Your task to perform on an android device: Open accessibility settings Image 0: 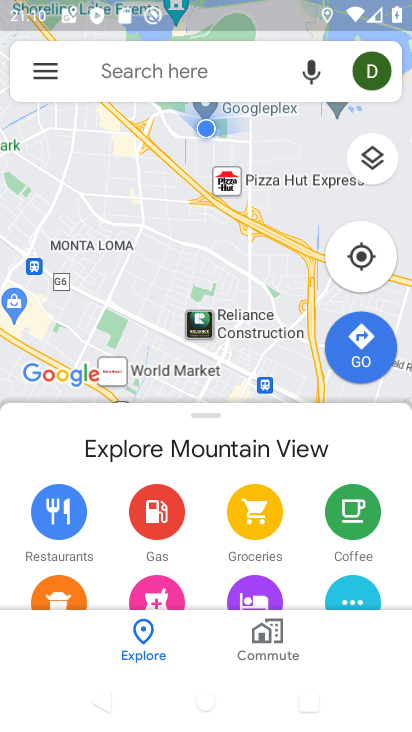
Step 0: press home button
Your task to perform on an android device: Open accessibility settings Image 1: 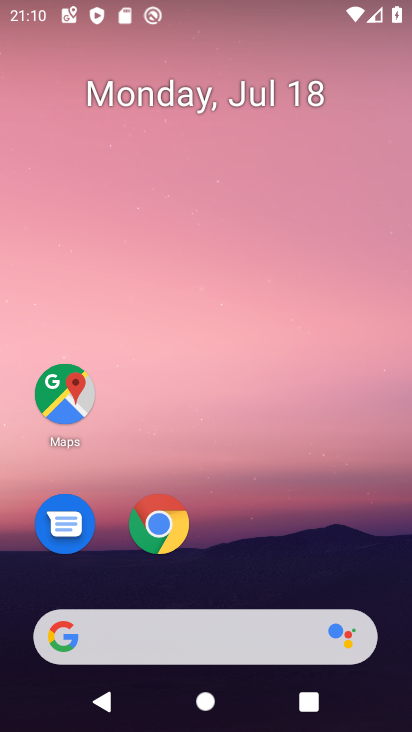
Step 1: drag from (283, 479) to (255, 37)
Your task to perform on an android device: Open accessibility settings Image 2: 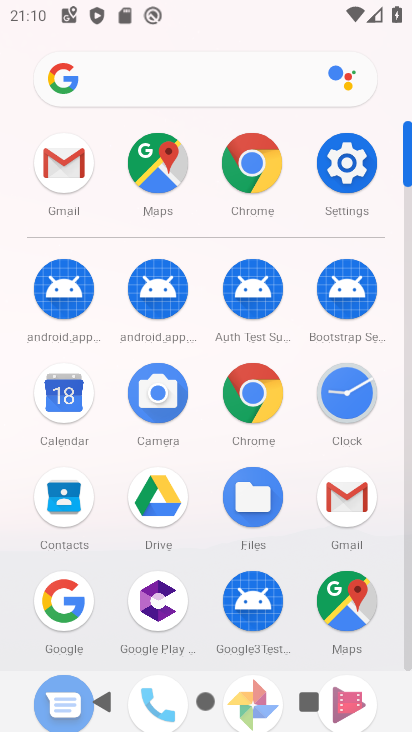
Step 2: click (342, 165)
Your task to perform on an android device: Open accessibility settings Image 3: 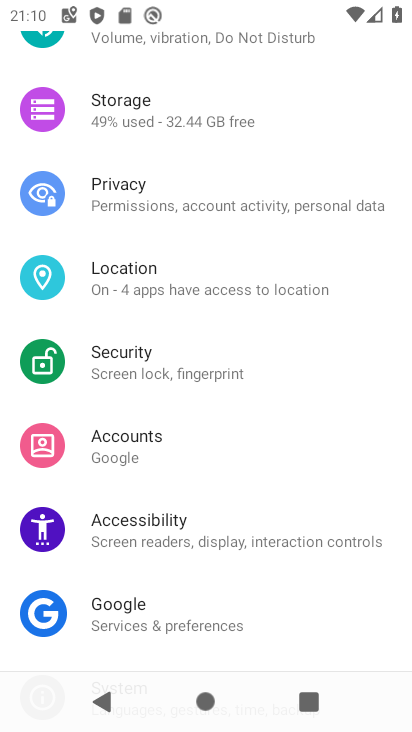
Step 3: click (237, 531)
Your task to perform on an android device: Open accessibility settings Image 4: 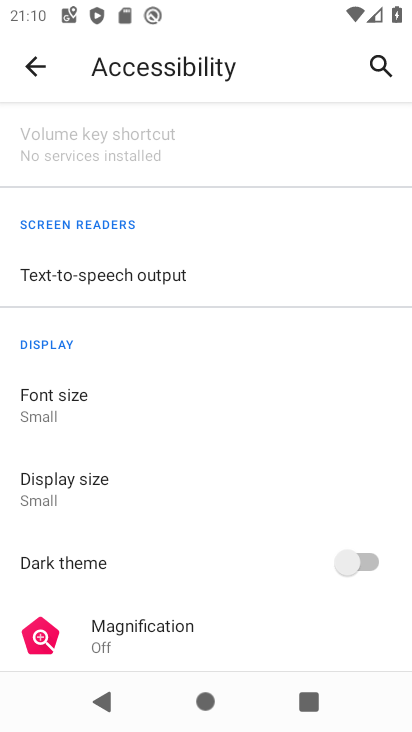
Step 4: task complete